Your task to perform on an android device: Open the map Image 0: 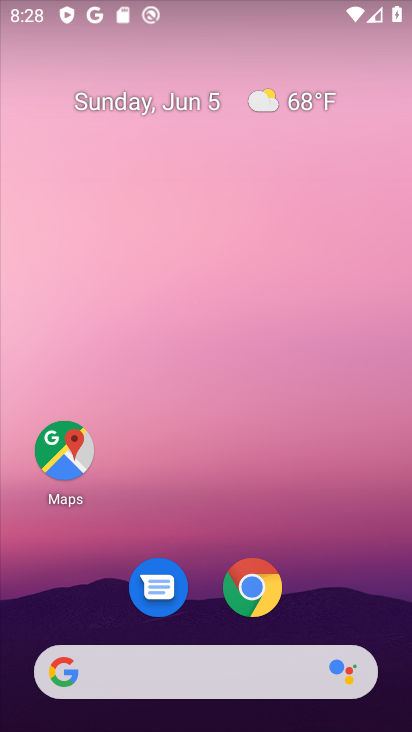
Step 0: click (60, 438)
Your task to perform on an android device: Open the map Image 1: 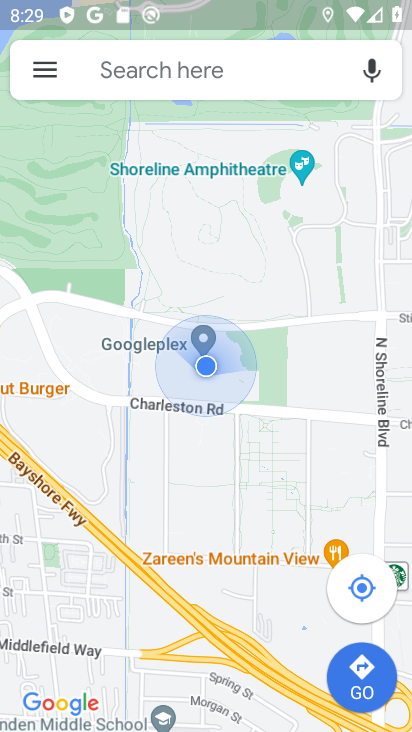
Step 1: click (60, 438)
Your task to perform on an android device: Open the map Image 2: 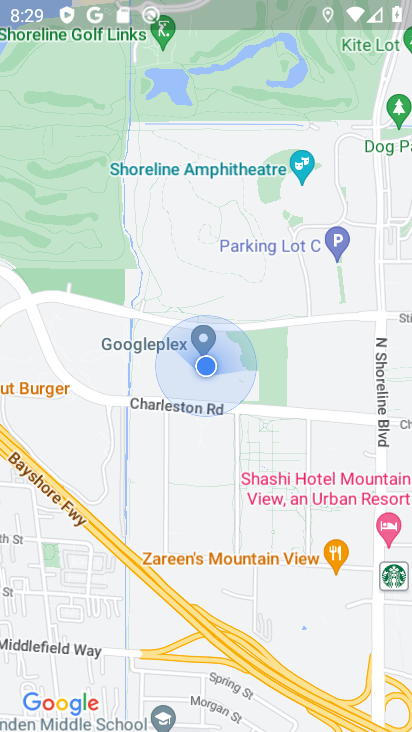
Step 2: press home button
Your task to perform on an android device: Open the map Image 3: 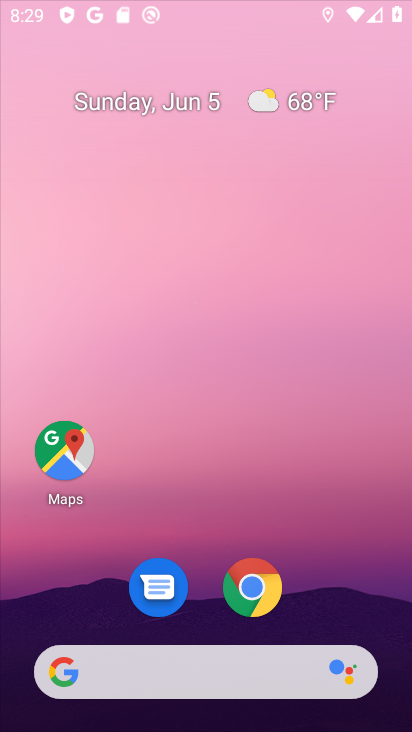
Step 3: click (356, 290)
Your task to perform on an android device: Open the map Image 4: 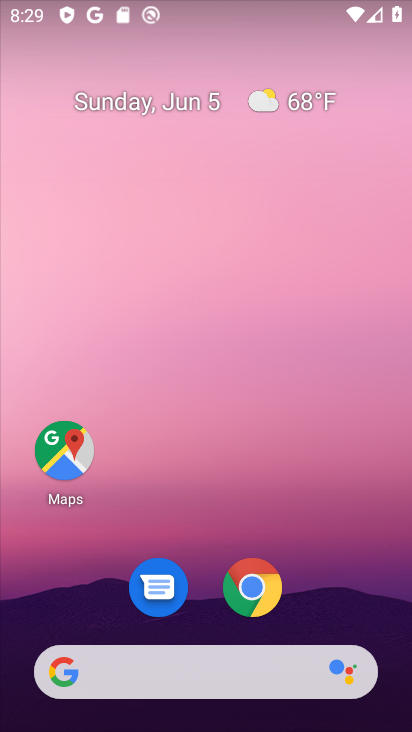
Step 4: click (65, 442)
Your task to perform on an android device: Open the map Image 5: 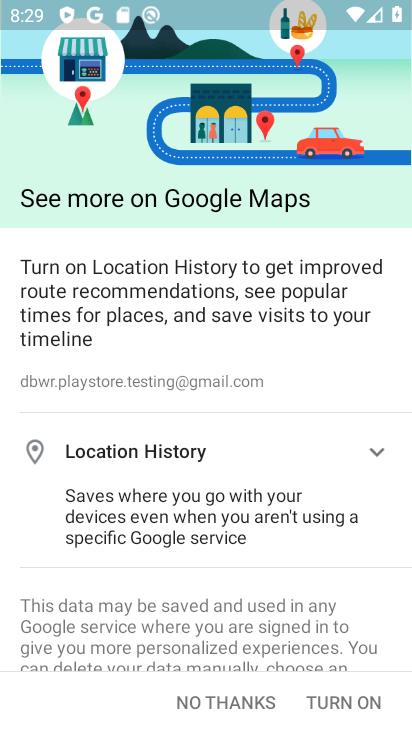
Step 5: click (258, 707)
Your task to perform on an android device: Open the map Image 6: 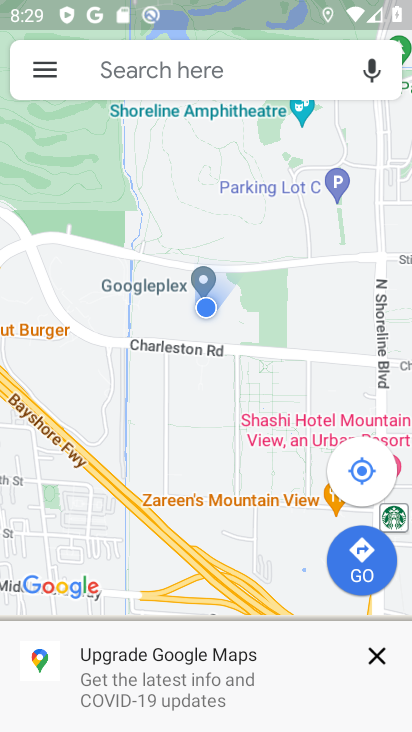
Step 6: task complete